Your task to perform on an android device: toggle wifi Image 0: 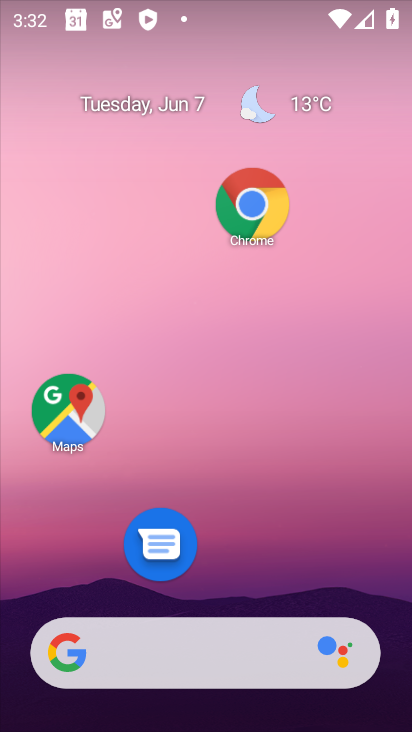
Step 0: drag from (219, 9) to (232, 269)
Your task to perform on an android device: toggle wifi Image 1: 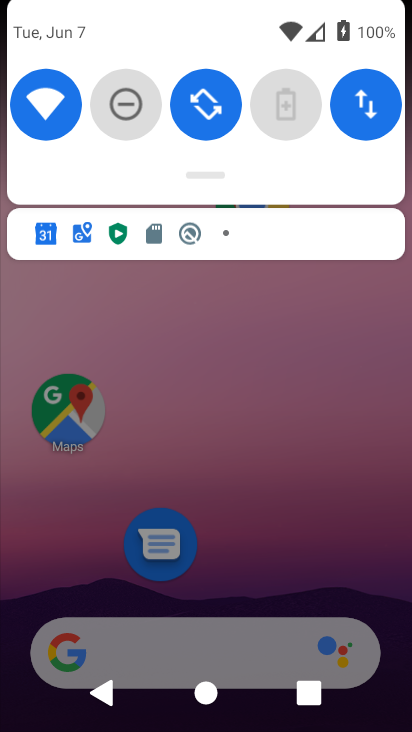
Step 1: click (256, 438)
Your task to perform on an android device: toggle wifi Image 2: 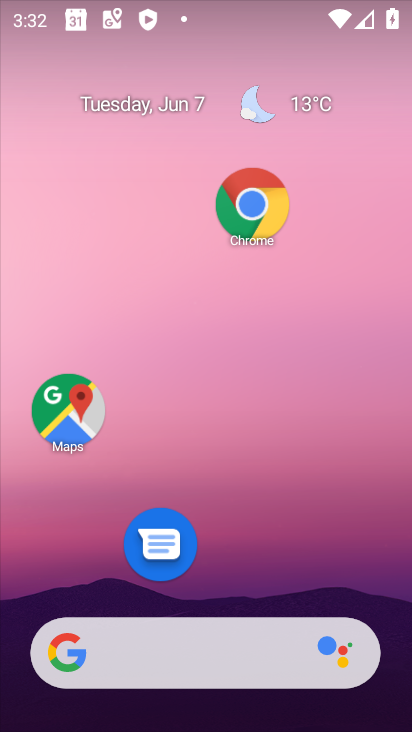
Step 2: drag from (236, 8) to (224, 619)
Your task to perform on an android device: toggle wifi Image 3: 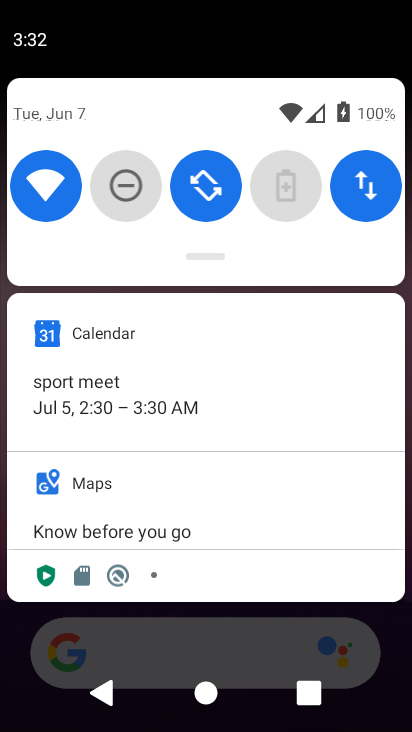
Step 3: click (44, 176)
Your task to perform on an android device: toggle wifi Image 4: 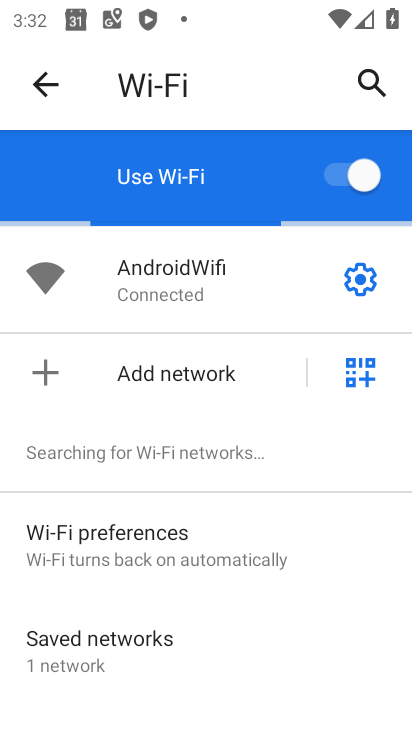
Step 4: click (343, 173)
Your task to perform on an android device: toggle wifi Image 5: 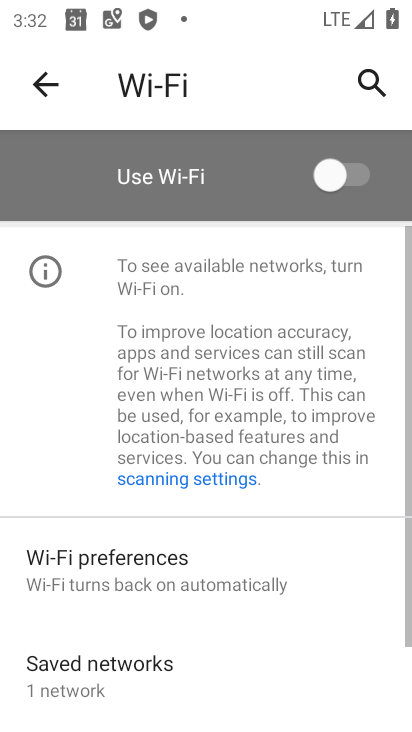
Step 5: task complete